Your task to perform on an android device: change alarm snooze length Image 0: 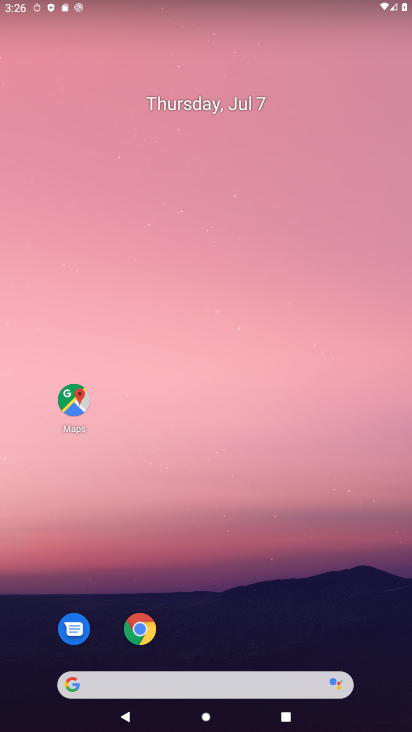
Step 0: drag from (168, 609) to (194, 60)
Your task to perform on an android device: change alarm snooze length Image 1: 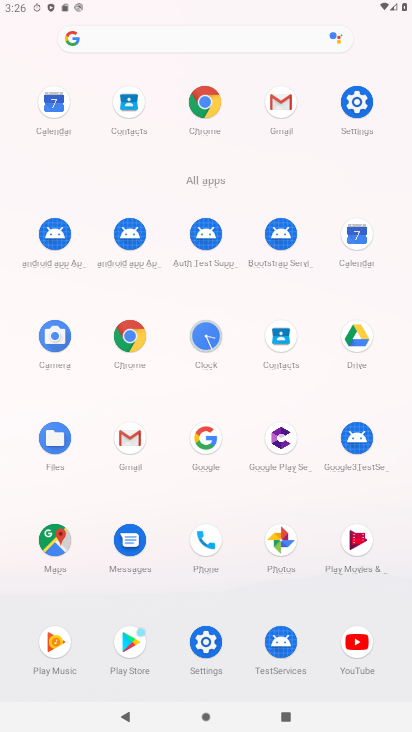
Step 1: click (213, 329)
Your task to perform on an android device: change alarm snooze length Image 2: 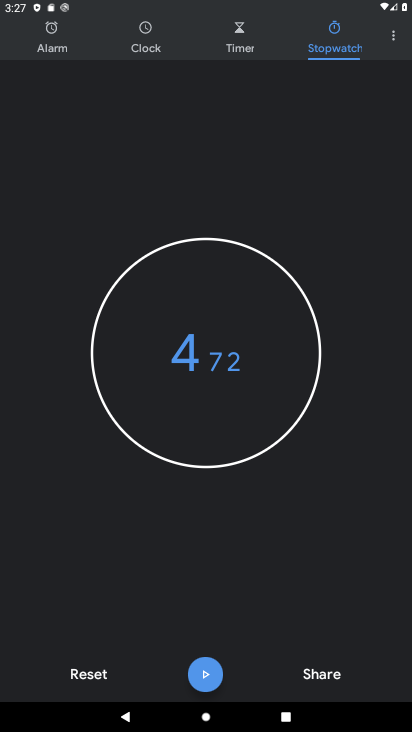
Step 2: click (387, 34)
Your task to perform on an android device: change alarm snooze length Image 3: 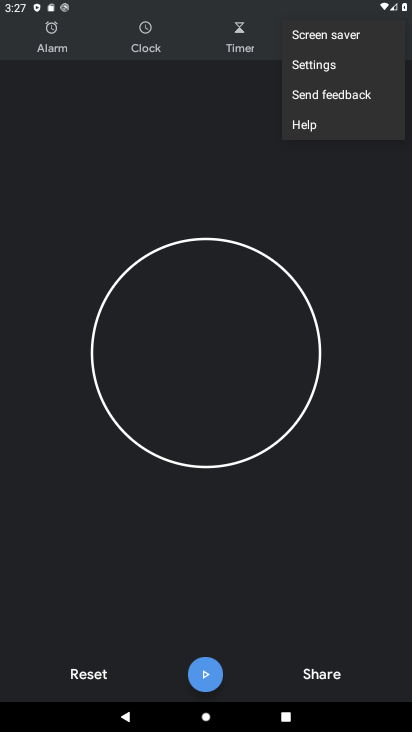
Step 3: click (325, 68)
Your task to perform on an android device: change alarm snooze length Image 4: 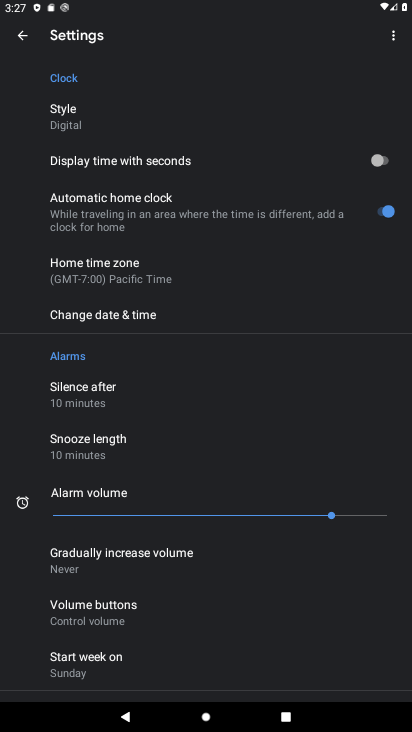
Step 4: drag from (170, 491) to (210, 303)
Your task to perform on an android device: change alarm snooze length Image 5: 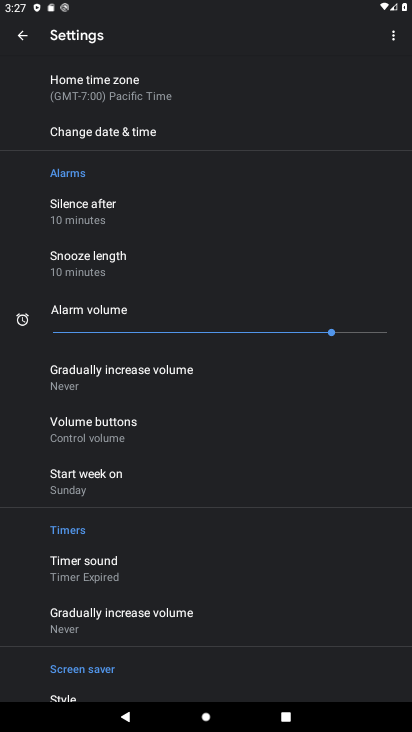
Step 5: drag from (100, 646) to (204, 358)
Your task to perform on an android device: change alarm snooze length Image 6: 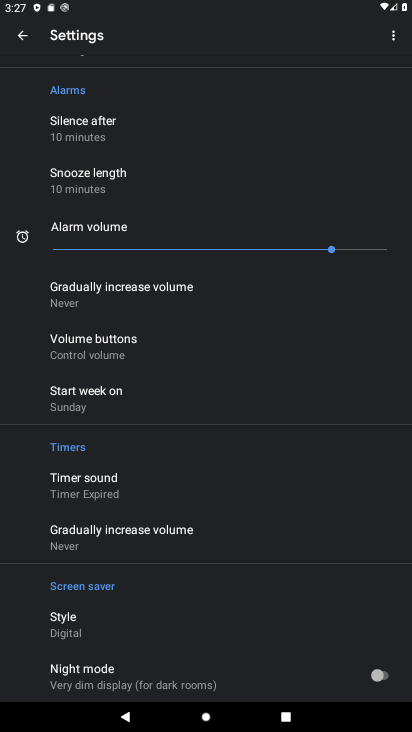
Step 6: drag from (151, 634) to (241, 381)
Your task to perform on an android device: change alarm snooze length Image 7: 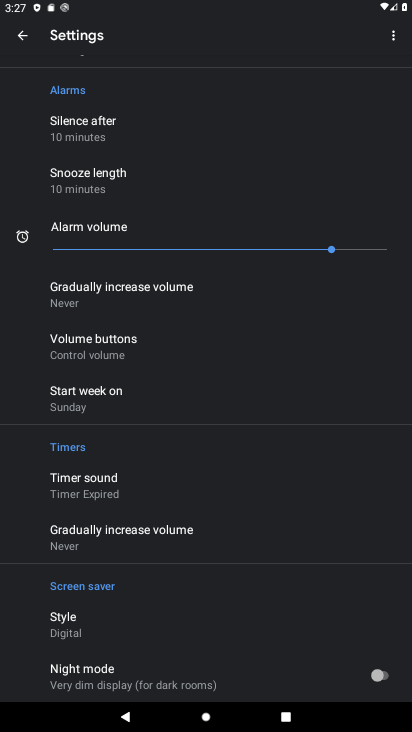
Step 7: drag from (236, 365) to (214, 625)
Your task to perform on an android device: change alarm snooze length Image 8: 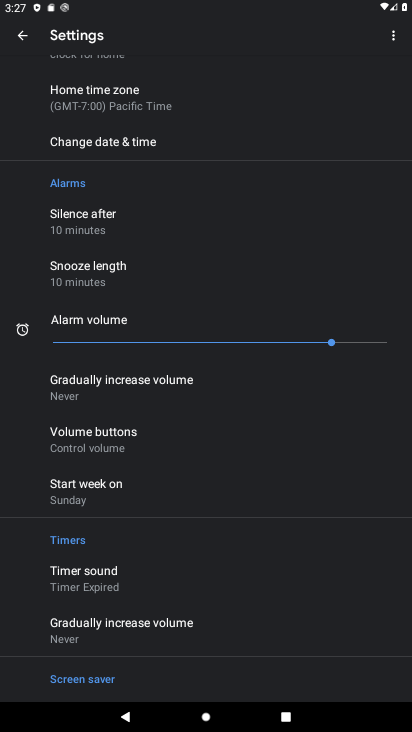
Step 8: click (81, 262)
Your task to perform on an android device: change alarm snooze length Image 9: 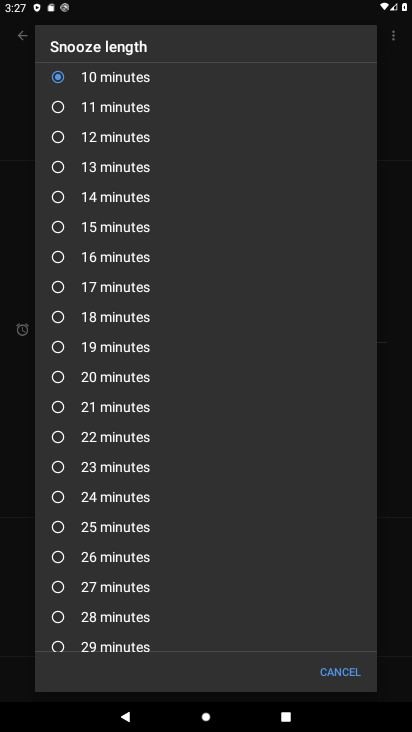
Step 9: click (58, 256)
Your task to perform on an android device: change alarm snooze length Image 10: 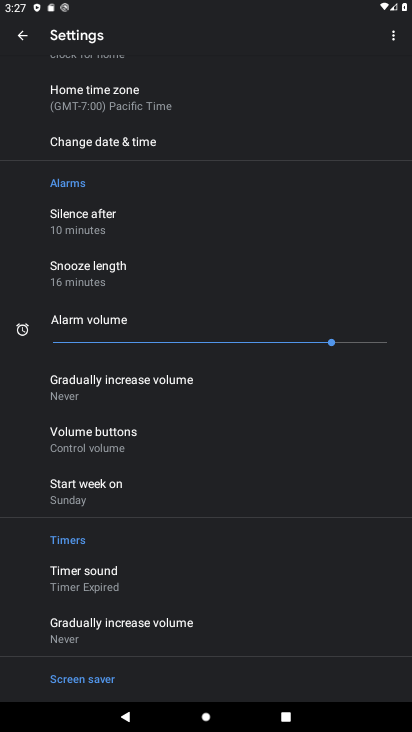
Step 10: task complete